Your task to perform on an android device: turn on data saver in the chrome app Image 0: 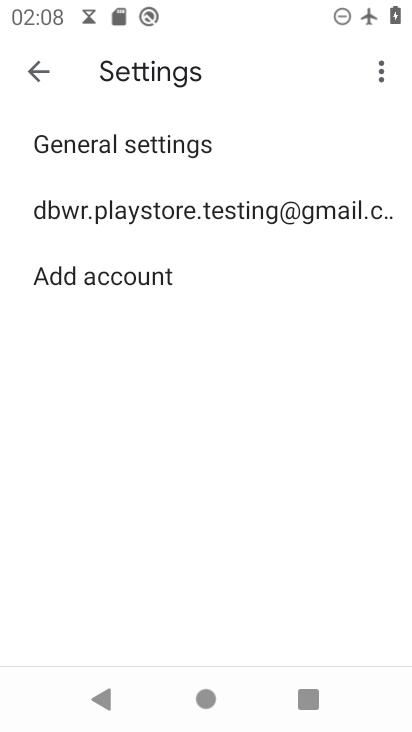
Step 0: press home button
Your task to perform on an android device: turn on data saver in the chrome app Image 1: 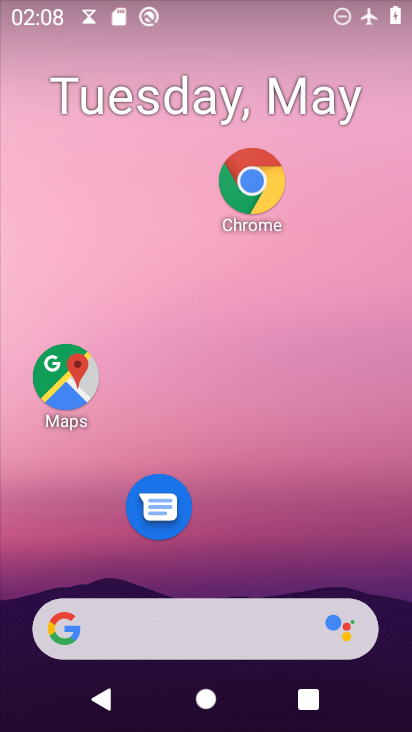
Step 1: drag from (247, 550) to (295, 284)
Your task to perform on an android device: turn on data saver in the chrome app Image 2: 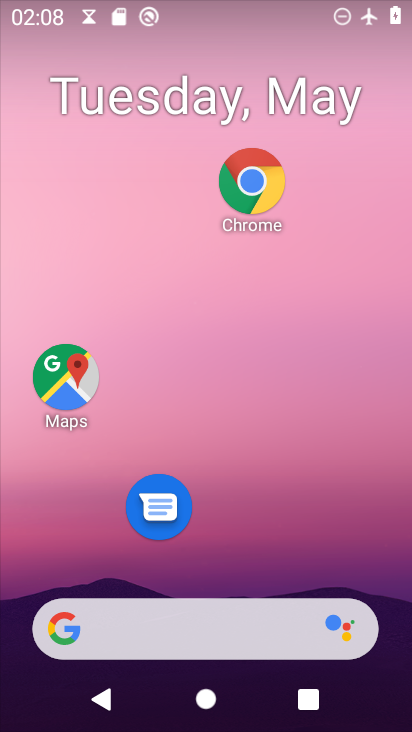
Step 2: drag from (318, 539) to (318, 218)
Your task to perform on an android device: turn on data saver in the chrome app Image 3: 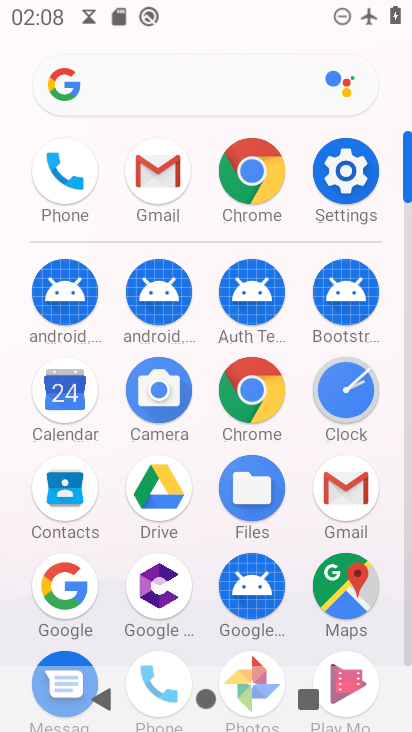
Step 3: click (241, 170)
Your task to perform on an android device: turn on data saver in the chrome app Image 4: 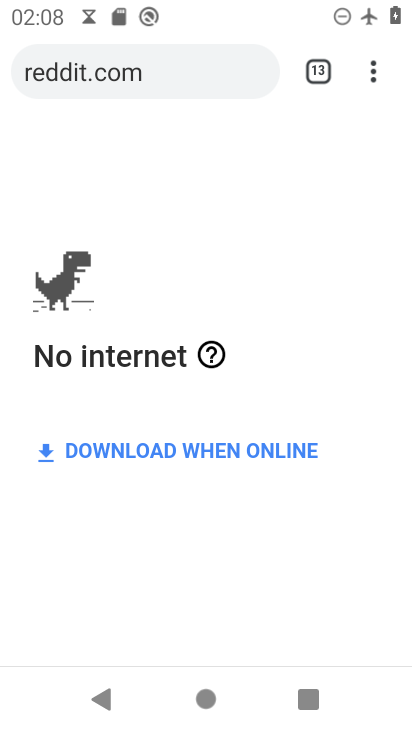
Step 4: click (372, 75)
Your task to perform on an android device: turn on data saver in the chrome app Image 5: 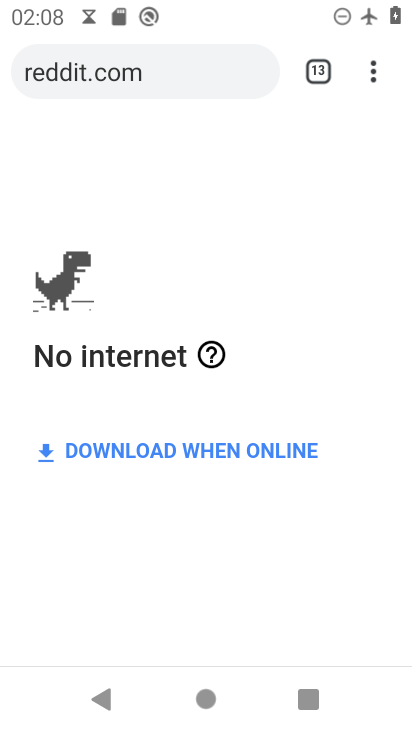
Step 5: click (374, 66)
Your task to perform on an android device: turn on data saver in the chrome app Image 6: 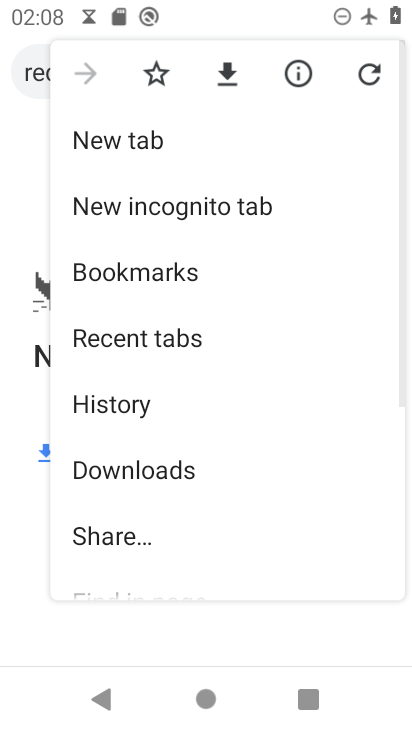
Step 6: drag from (164, 492) to (241, 137)
Your task to perform on an android device: turn on data saver in the chrome app Image 7: 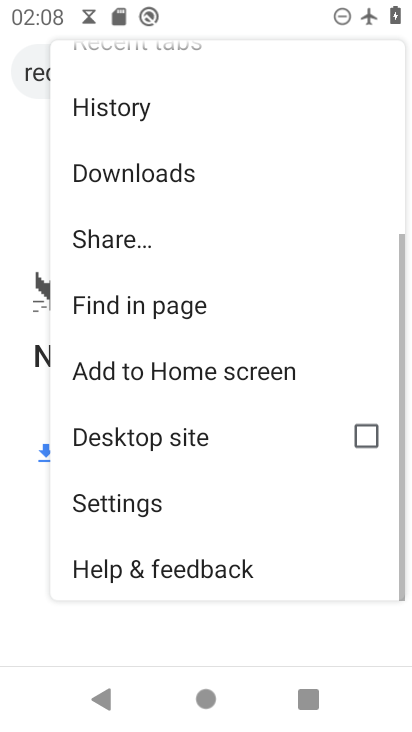
Step 7: drag from (148, 486) to (192, 321)
Your task to perform on an android device: turn on data saver in the chrome app Image 8: 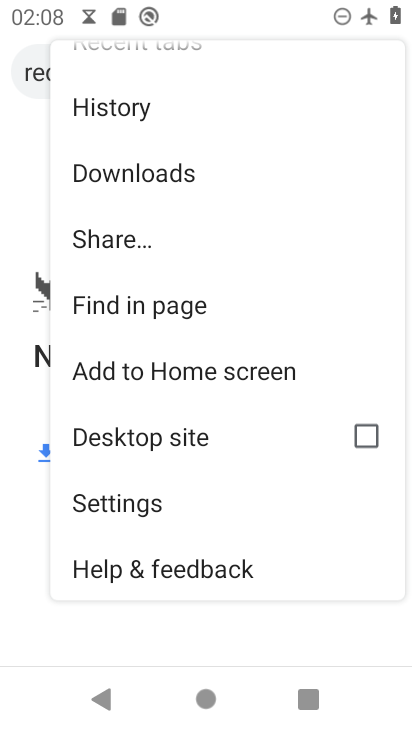
Step 8: click (158, 490)
Your task to perform on an android device: turn on data saver in the chrome app Image 9: 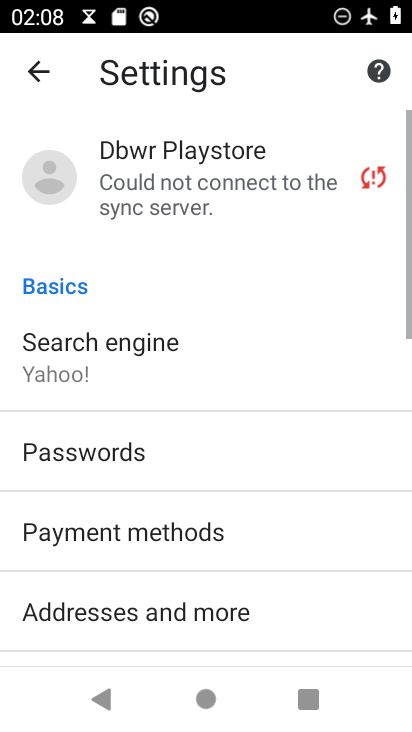
Step 9: drag from (230, 568) to (305, 95)
Your task to perform on an android device: turn on data saver in the chrome app Image 10: 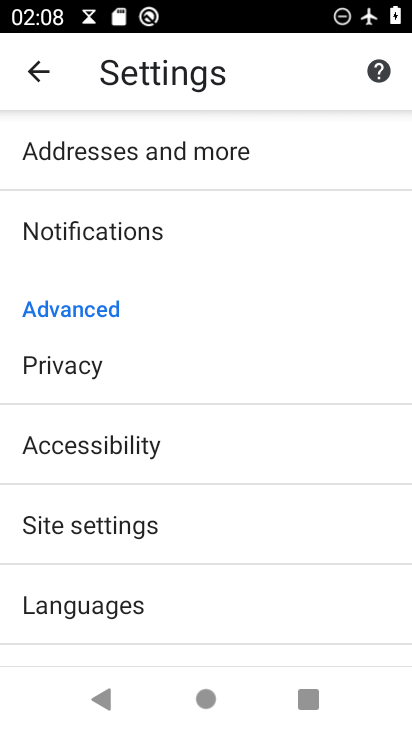
Step 10: drag from (217, 560) to (297, 157)
Your task to perform on an android device: turn on data saver in the chrome app Image 11: 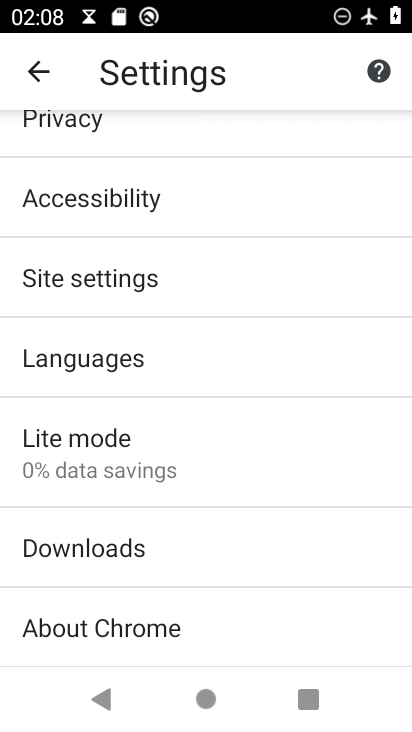
Step 11: click (136, 348)
Your task to perform on an android device: turn on data saver in the chrome app Image 12: 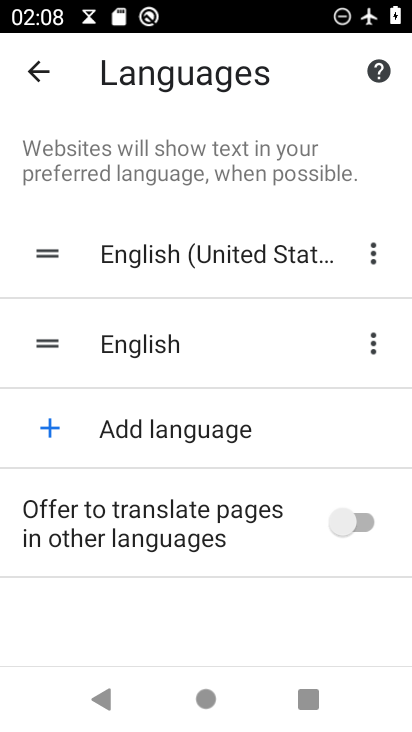
Step 12: click (360, 520)
Your task to perform on an android device: turn on data saver in the chrome app Image 13: 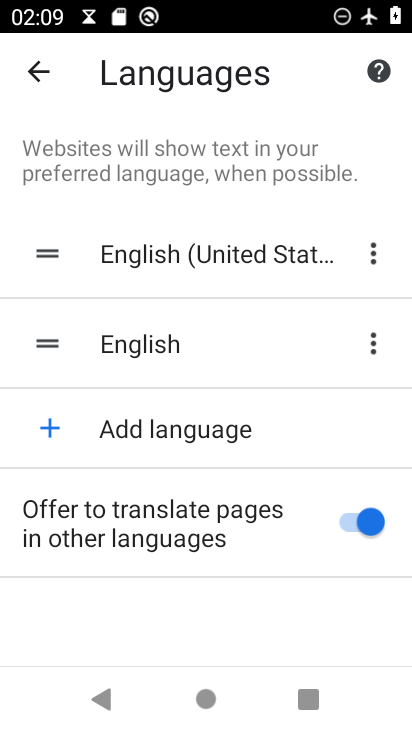
Step 13: task complete